Your task to perform on an android device: What is the news today? Image 0: 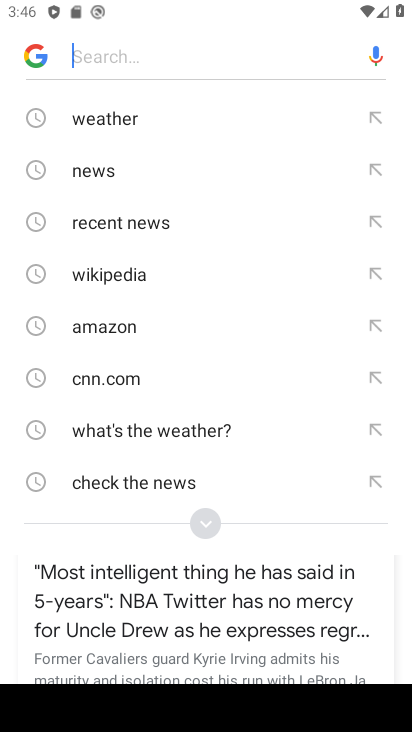
Step 0: press back button
Your task to perform on an android device: What is the news today? Image 1: 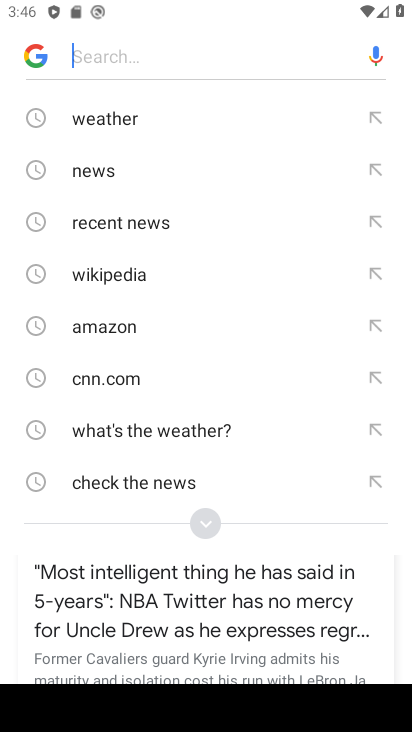
Step 1: task complete